Your task to perform on an android device: Open Google Maps Image 0: 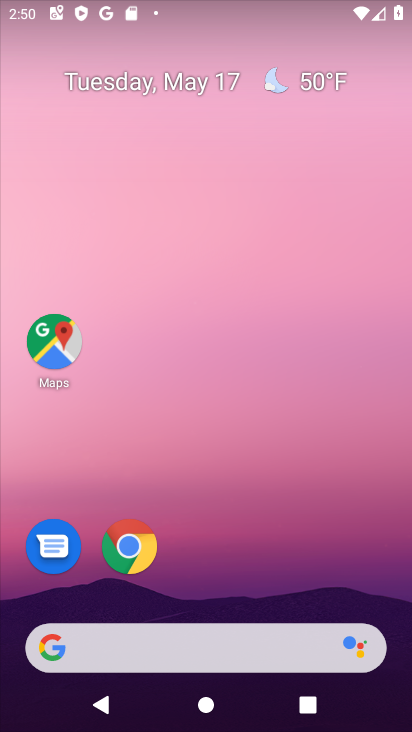
Step 0: click (77, 351)
Your task to perform on an android device: Open Google Maps Image 1: 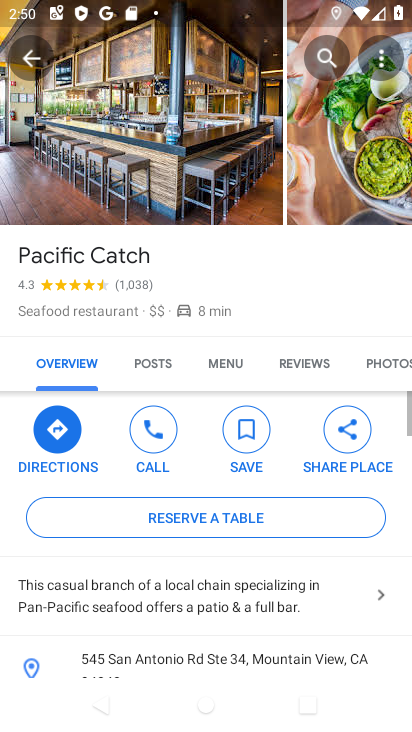
Step 1: click (35, 63)
Your task to perform on an android device: Open Google Maps Image 2: 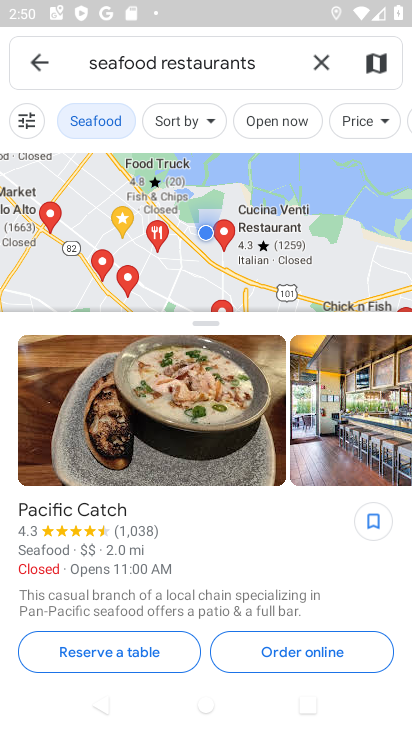
Step 2: task complete